Your task to perform on an android device: Go to Maps Image 0: 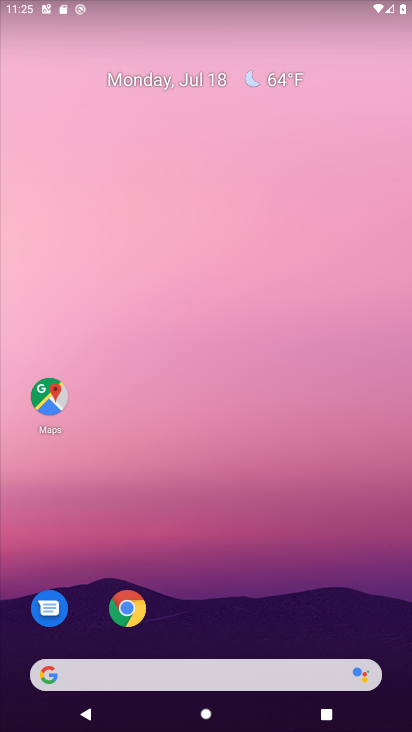
Step 0: drag from (279, 602) to (281, 118)
Your task to perform on an android device: Go to Maps Image 1: 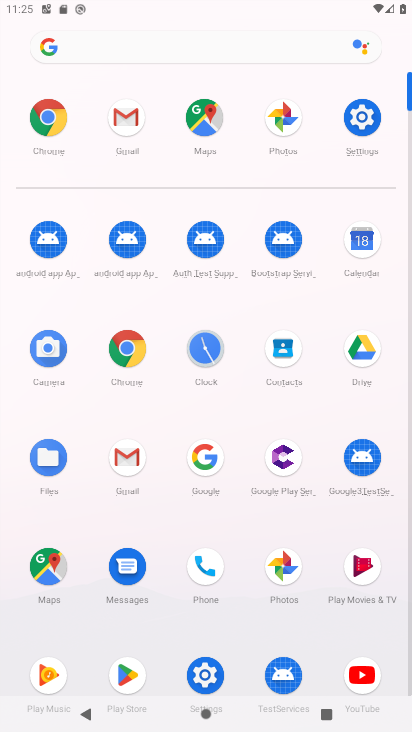
Step 1: click (58, 576)
Your task to perform on an android device: Go to Maps Image 2: 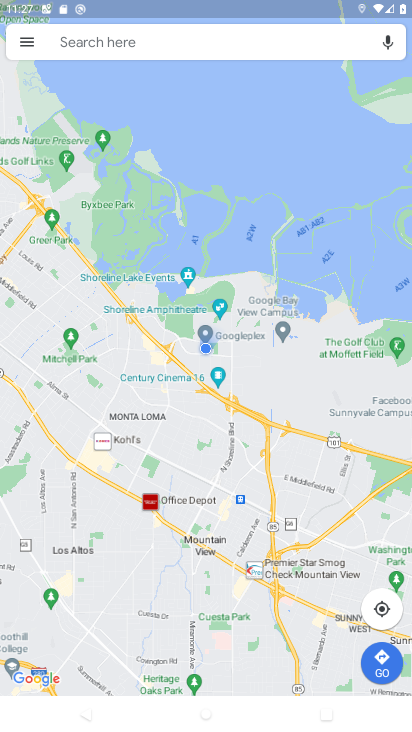
Step 2: task complete